Your task to perform on an android device: add a label to a message in the gmail app Image 0: 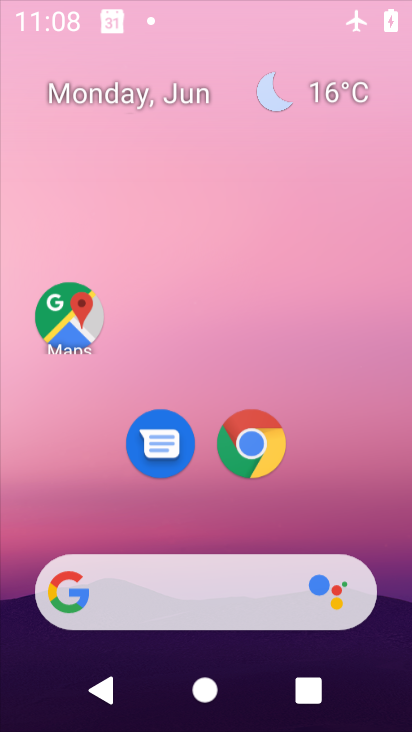
Step 0: press home button
Your task to perform on an android device: add a label to a message in the gmail app Image 1: 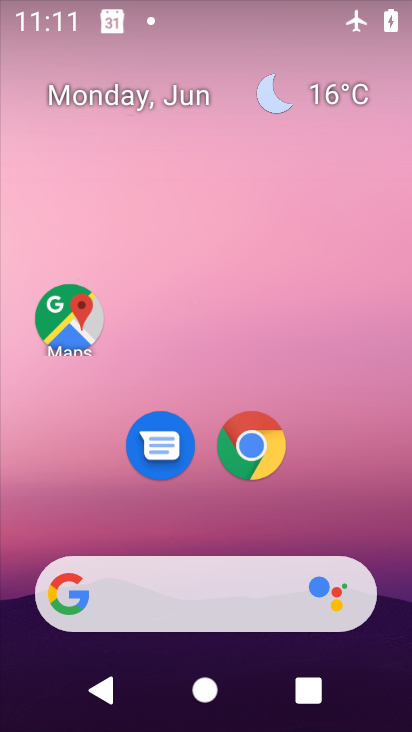
Step 1: drag from (215, 510) to (229, 166)
Your task to perform on an android device: add a label to a message in the gmail app Image 2: 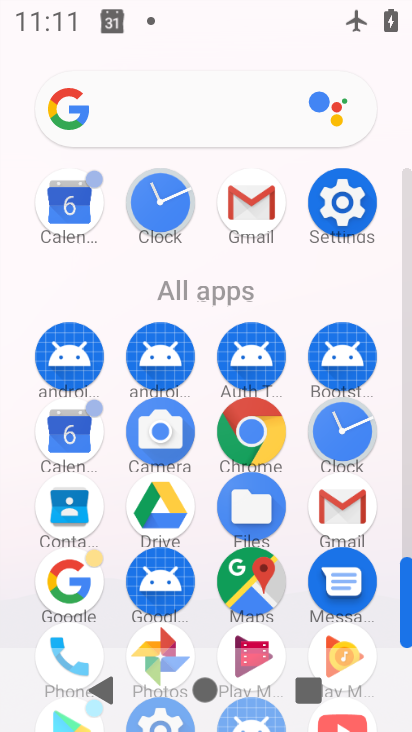
Step 2: click (244, 205)
Your task to perform on an android device: add a label to a message in the gmail app Image 3: 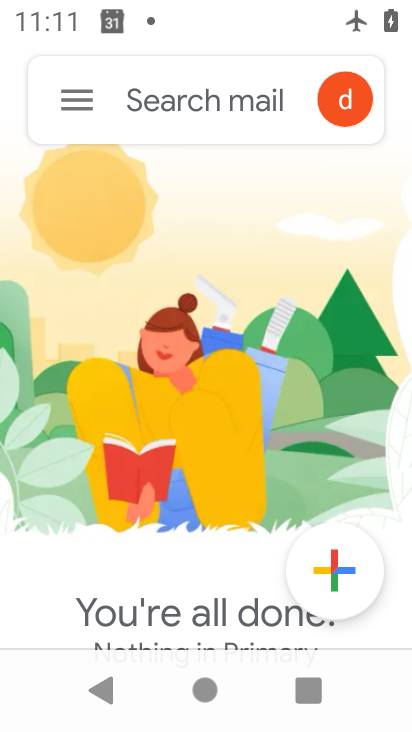
Step 3: click (78, 100)
Your task to perform on an android device: add a label to a message in the gmail app Image 4: 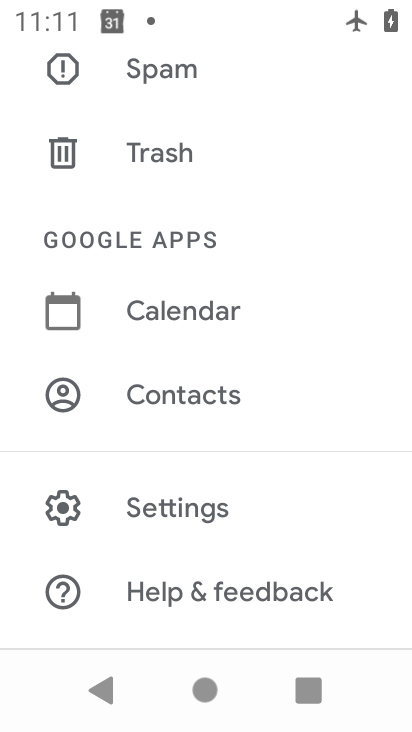
Step 4: drag from (285, 166) to (247, 560)
Your task to perform on an android device: add a label to a message in the gmail app Image 5: 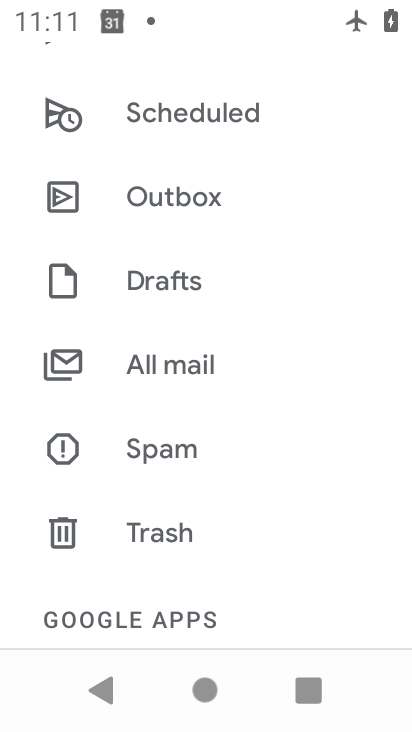
Step 5: click (172, 371)
Your task to perform on an android device: add a label to a message in the gmail app Image 6: 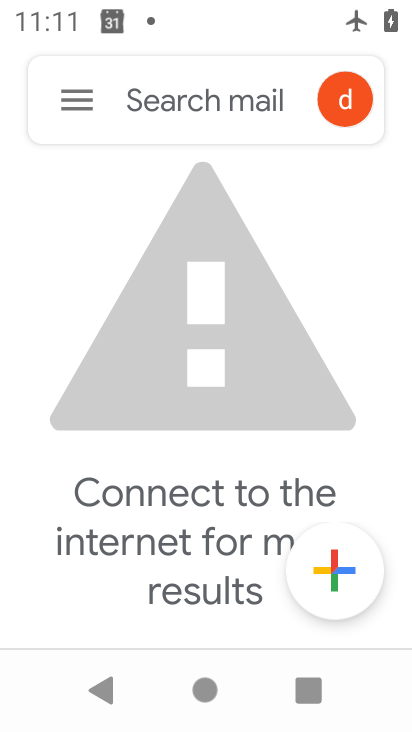
Step 6: drag from (200, 1) to (170, 414)
Your task to perform on an android device: add a label to a message in the gmail app Image 7: 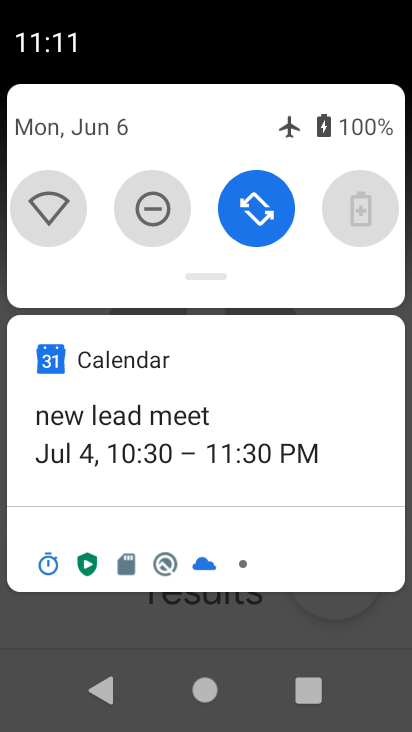
Step 7: click (51, 200)
Your task to perform on an android device: add a label to a message in the gmail app Image 8: 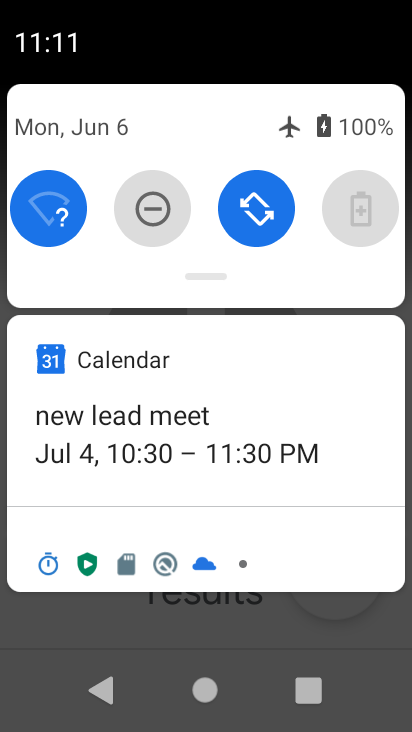
Step 8: task complete